Your task to perform on an android device: Go to sound settings Image 0: 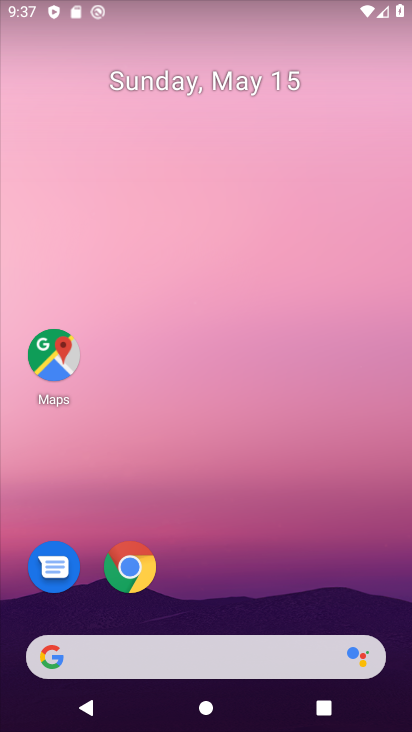
Step 0: drag from (237, 584) to (207, 11)
Your task to perform on an android device: Go to sound settings Image 1: 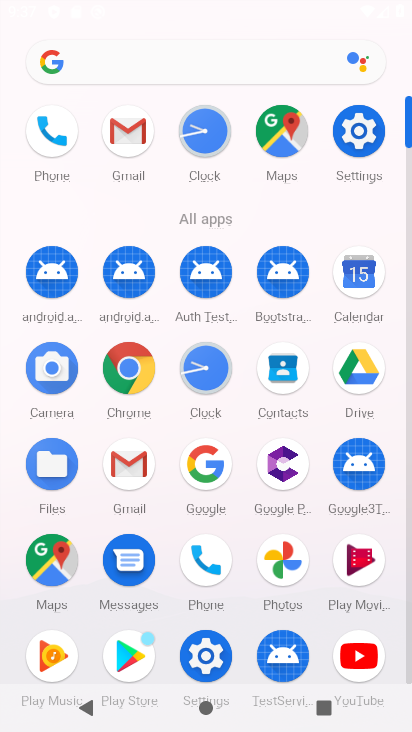
Step 1: click (360, 136)
Your task to perform on an android device: Go to sound settings Image 2: 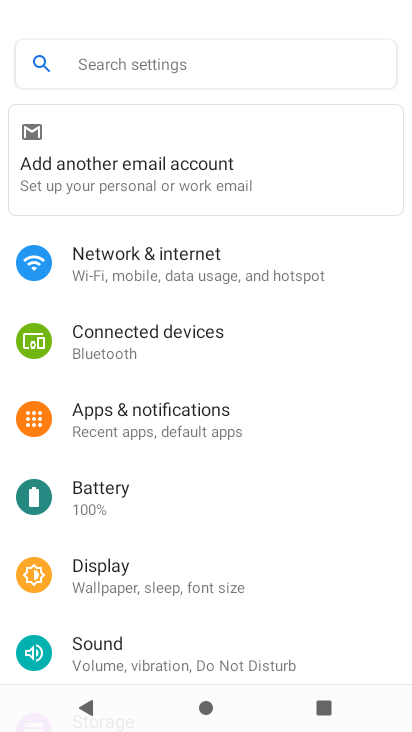
Step 2: click (124, 651)
Your task to perform on an android device: Go to sound settings Image 3: 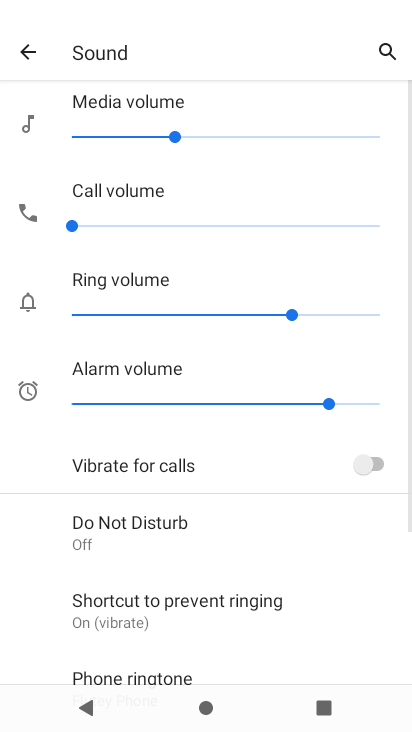
Step 3: task complete